Your task to perform on an android device: Open CNN.com Image 0: 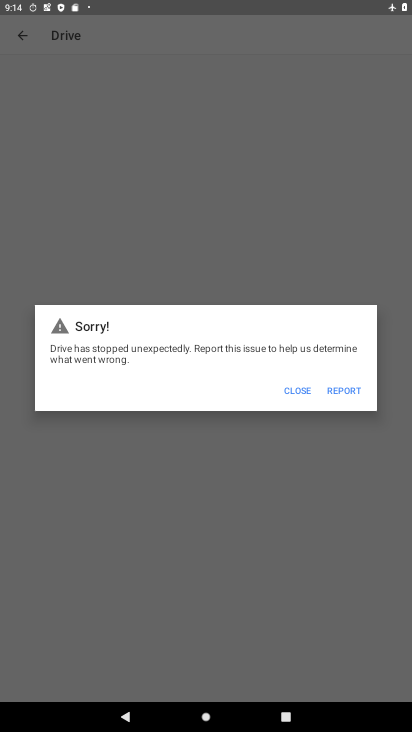
Step 0: press home button
Your task to perform on an android device: Open CNN.com Image 1: 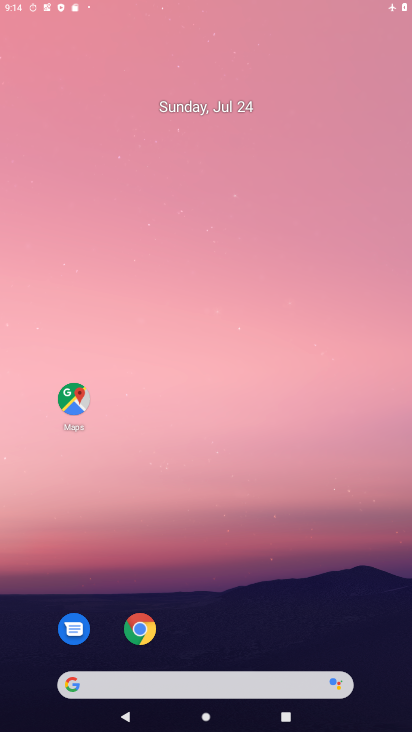
Step 1: drag from (238, 624) to (301, 6)
Your task to perform on an android device: Open CNN.com Image 2: 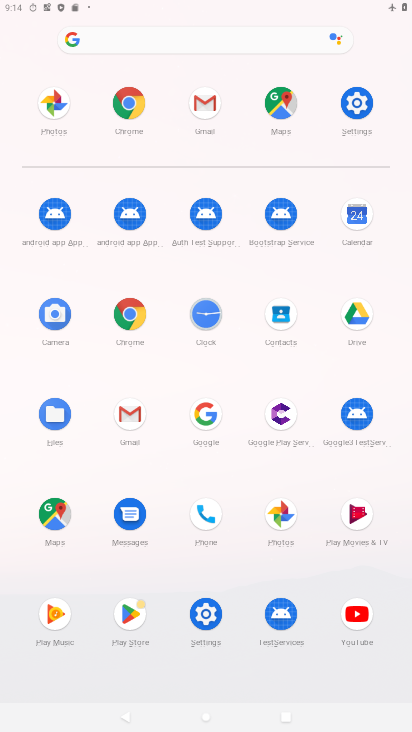
Step 2: drag from (224, 492) to (256, 218)
Your task to perform on an android device: Open CNN.com Image 3: 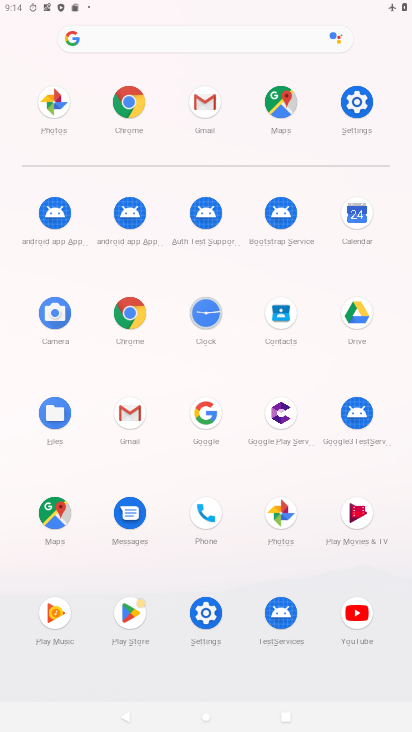
Step 3: click (131, 332)
Your task to perform on an android device: Open CNN.com Image 4: 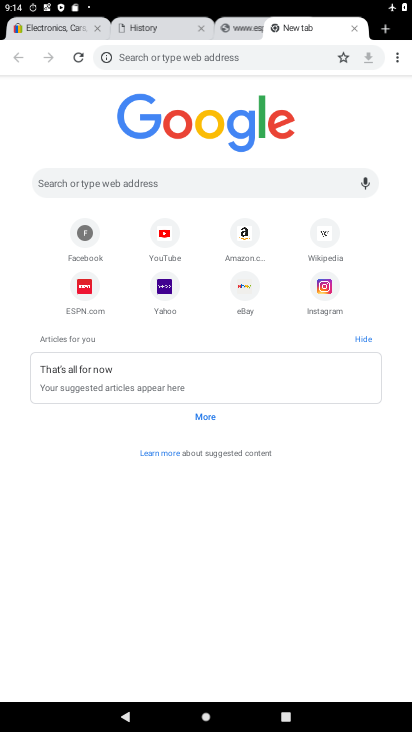
Step 4: click (198, 54)
Your task to perform on an android device: Open CNN.com Image 5: 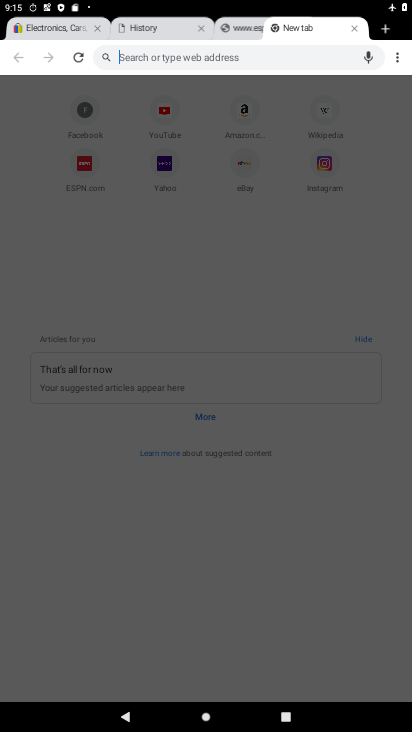
Step 5: type "cnn.com"
Your task to perform on an android device: Open CNN.com Image 6: 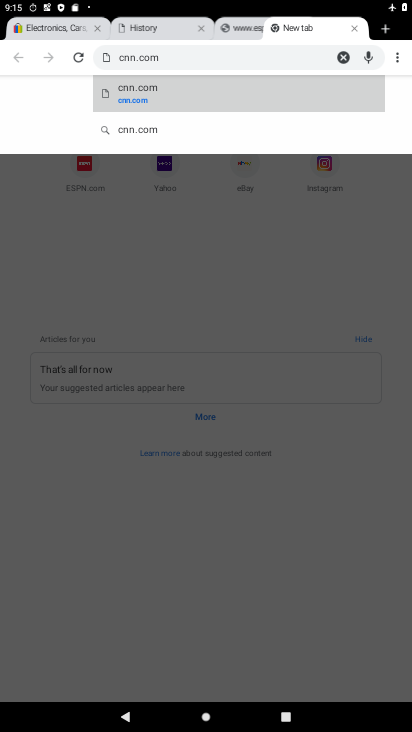
Step 6: task complete